Your task to perform on an android device: Add jbl flip 4 to the cart on newegg.com Image 0: 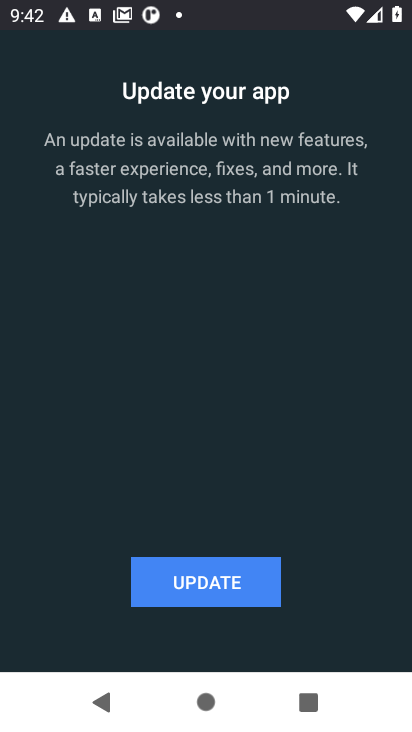
Step 0: press home button
Your task to perform on an android device: Add jbl flip 4 to the cart on newegg.com Image 1: 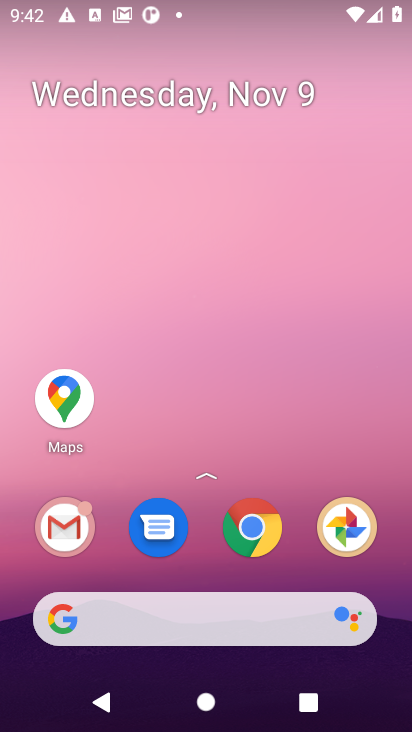
Step 1: click (251, 536)
Your task to perform on an android device: Add jbl flip 4 to the cart on newegg.com Image 2: 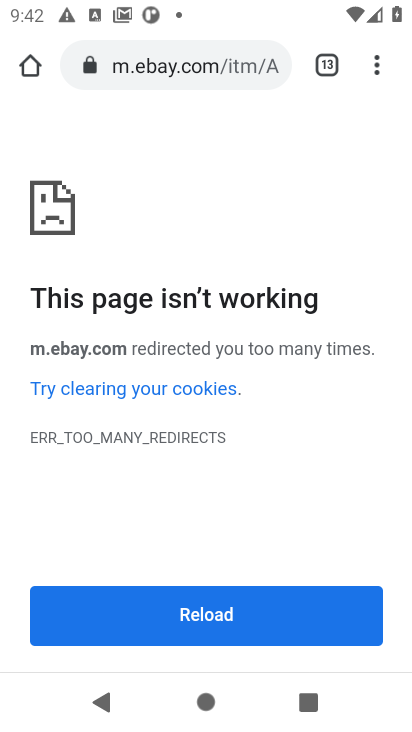
Step 2: click (191, 75)
Your task to perform on an android device: Add jbl flip 4 to the cart on newegg.com Image 3: 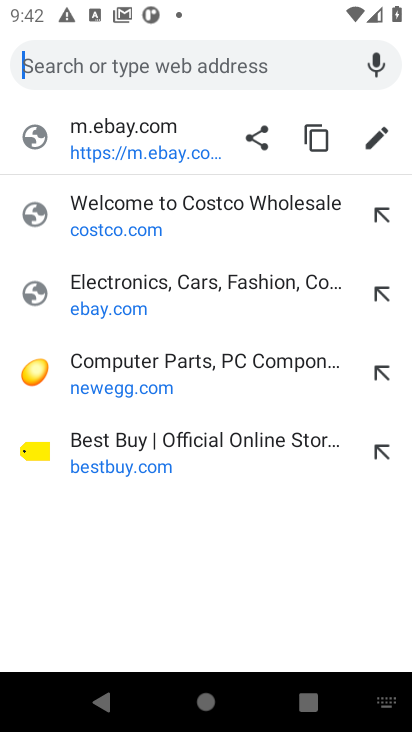
Step 3: click (112, 364)
Your task to perform on an android device: Add jbl flip 4 to the cart on newegg.com Image 4: 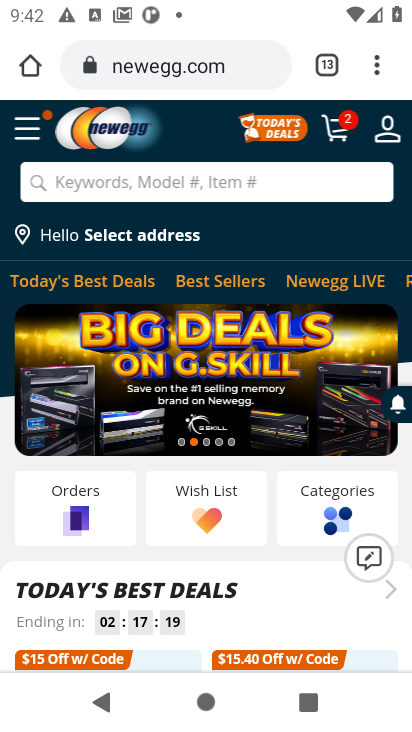
Step 4: click (152, 170)
Your task to perform on an android device: Add jbl flip 4 to the cart on newegg.com Image 5: 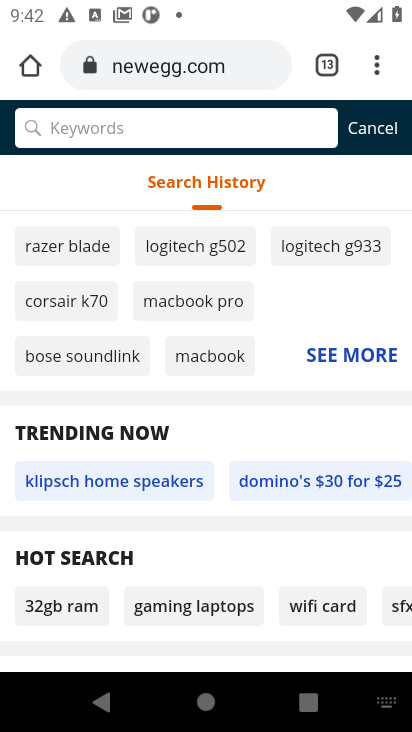
Step 5: type "jbl flip 4"
Your task to perform on an android device: Add jbl flip 4 to the cart on newegg.com Image 6: 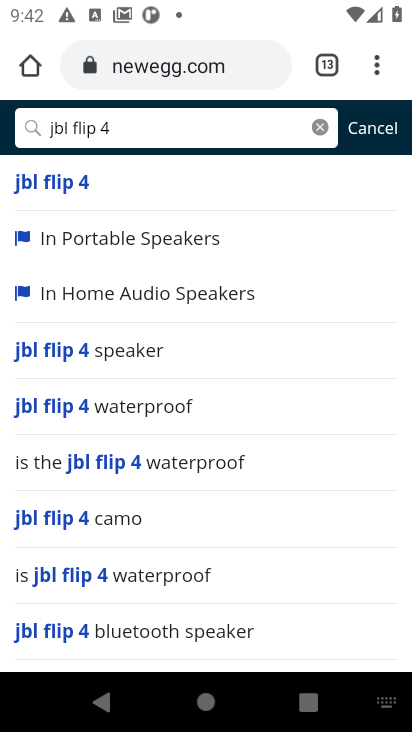
Step 6: click (48, 190)
Your task to perform on an android device: Add jbl flip 4 to the cart on newegg.com Image 7: 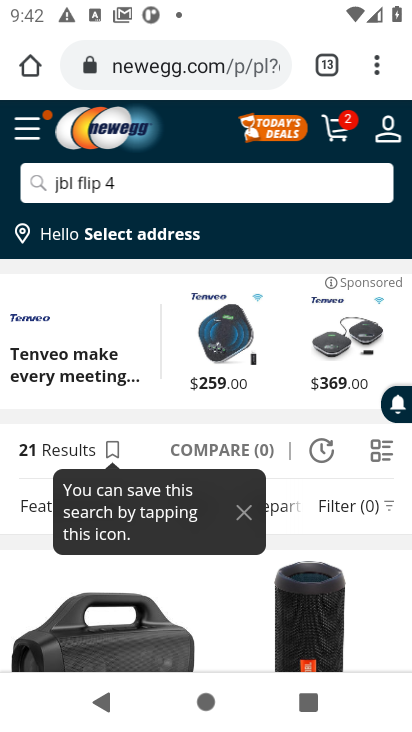
Step 7: drag from (185, 556) to (185, 324)
Your task to perform on an android device: Add jbl flip 4 to the cart on newegg.com Image 8: 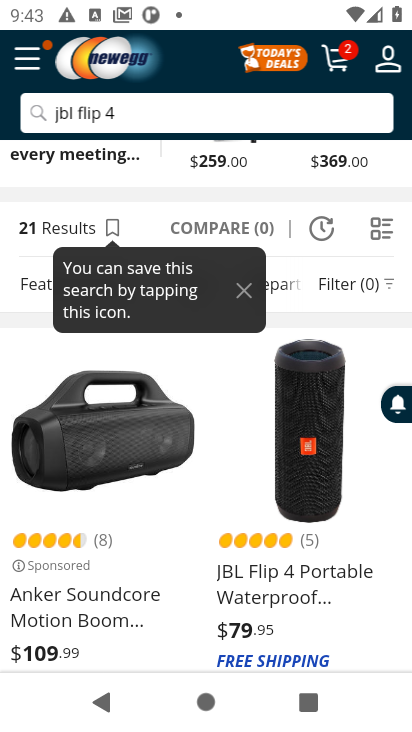
Step 8: click (291, 477)
Your task to perform on an android device: Add jbl flip 4 to the cart on newegg.com Image 9: 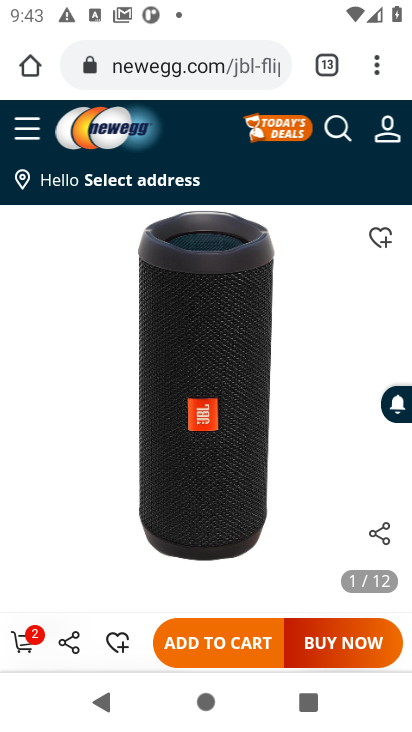
Step 9: click (211, 644)
Your task to perform on an android device: Add jbl flip 4 to the cart on newegg.com Image 10: 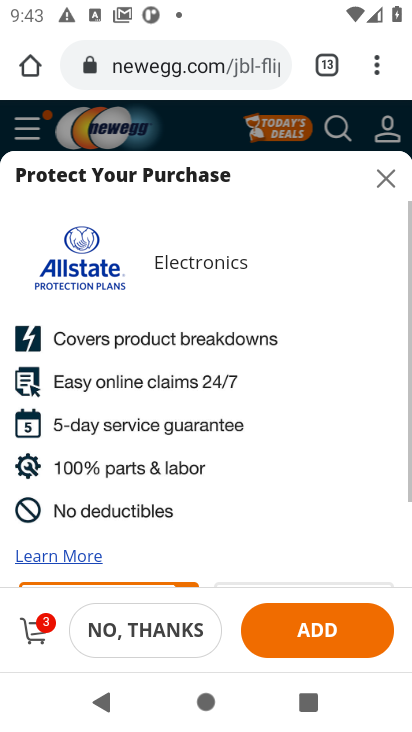
Step 10: task complete